Your task to perform on an android device: Do I have any events tomorrow? Image 0: 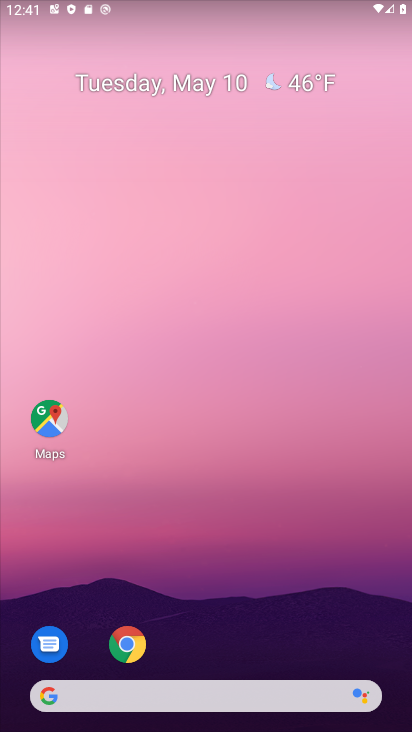
Step 0: drag from (289, 650) to (227, 138)
Your task to perform on an android device: Do I have any events tomorrow? Image 1: 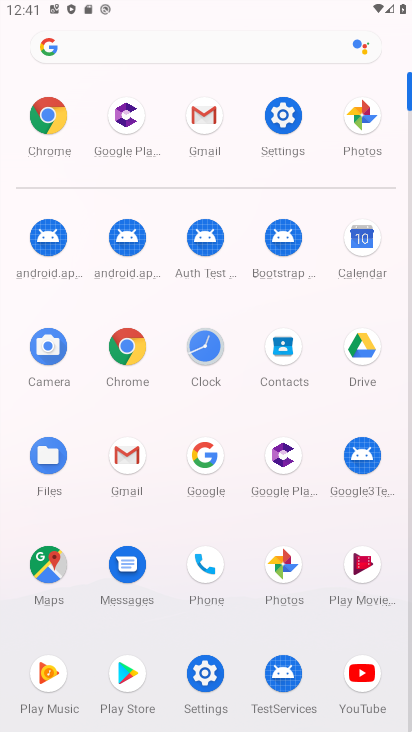
Step 1: click (366, 249)
Your task to perform on an android device: Do I have any events tomorrow? Image 2: 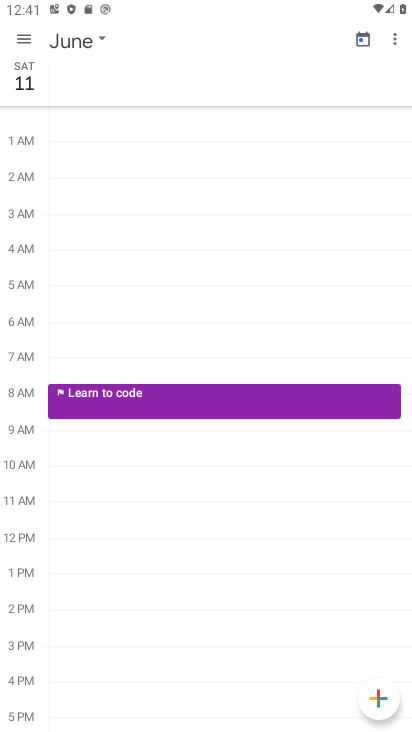
Step 2: click (19, 52)
Your task to perform on an android device: Do I have any events tomorrow? Image 3: 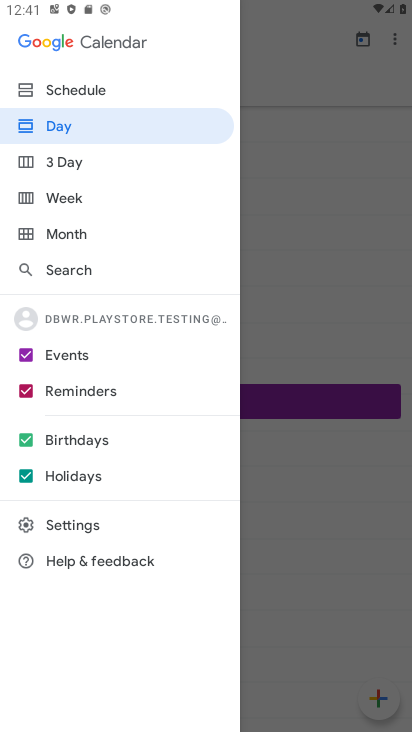
Step 3: click (80, 136)
Your task to perform on an android device: Do I have any events tomorrow? Image 4: 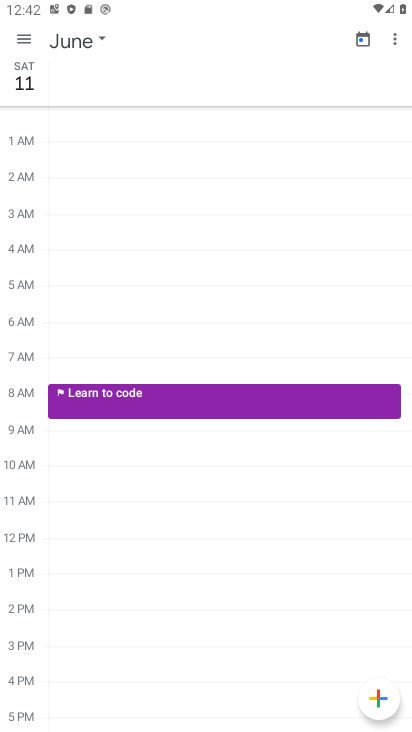
Step 4: task complete